Your task to perform on an android device: Open privacy settings Image 0: 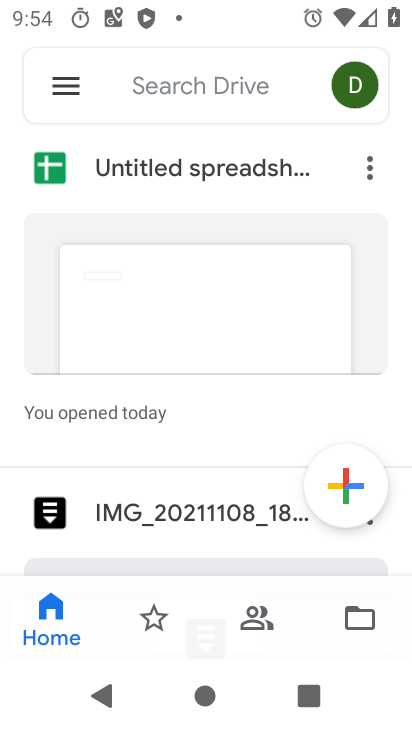
Step 0: press home button
Your task to perform on an android device: Open privacy settings Image 1: 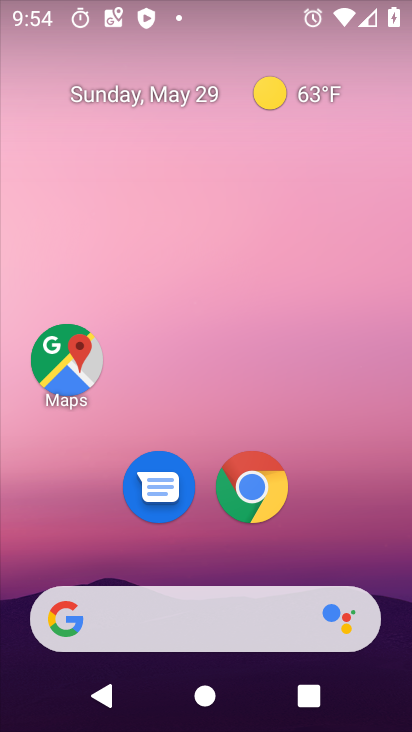
Step 1: drag from (187, 618) to (279, 90)
Your task to perform on an android device: Open privacy settings Image 2: 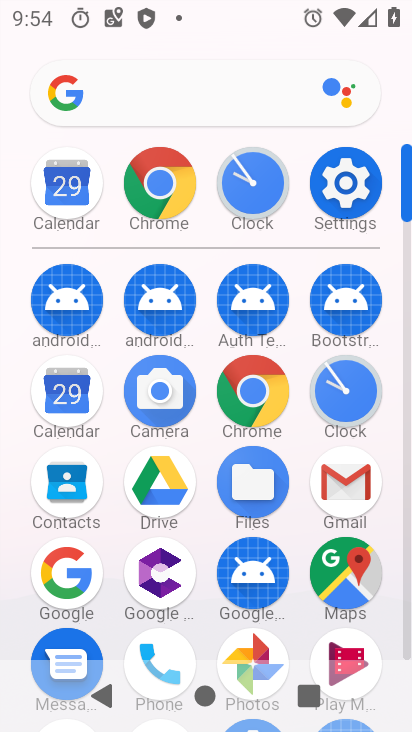
Step 2: click (352, 203)
Your task to perform on an android device: Open privacy settings Image 3: 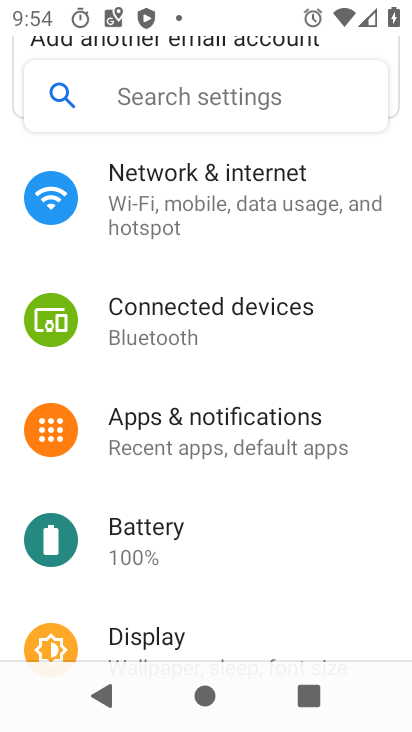
Step 3: drag from (227, 482) to (317, 78)
Your task to perform on an android device: Open privacy settings Image 4: 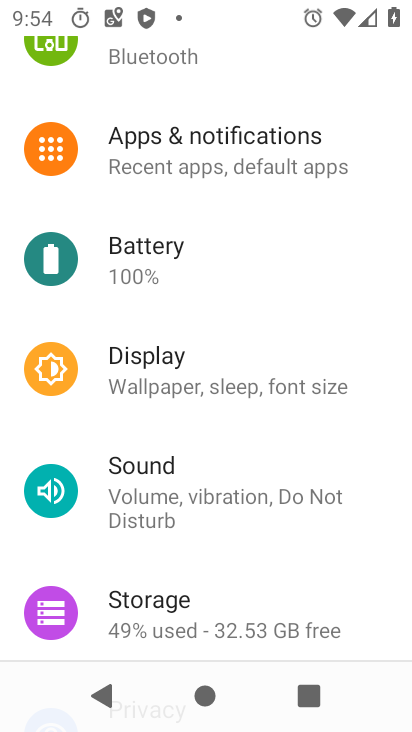
Step 4: drag from (181, 467) to (218, 284)
Your task to perform on an android device: Open privacy settings Image 5: 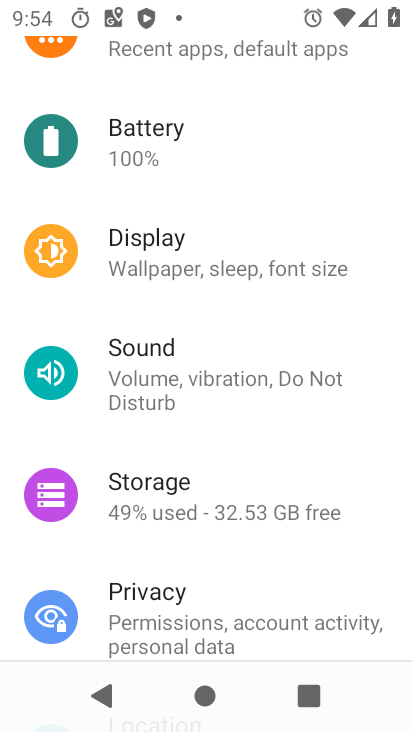
Step 5: click (212, 592)
Your task to perform on an android device: Open privacy settings Image 6: 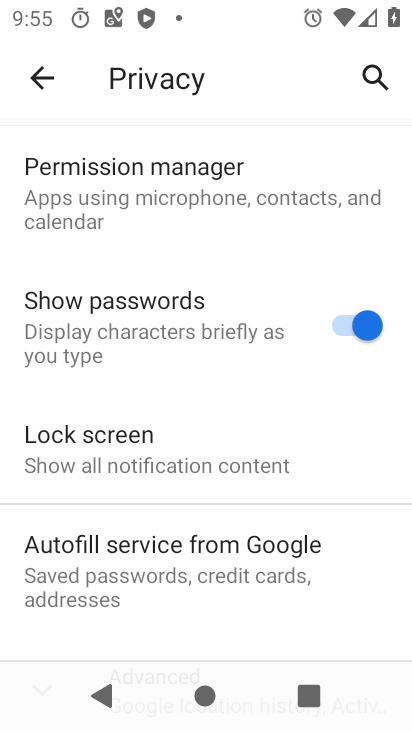
Step 6: task complete